Your task to perform on an android device: What's the weather? Image 0: 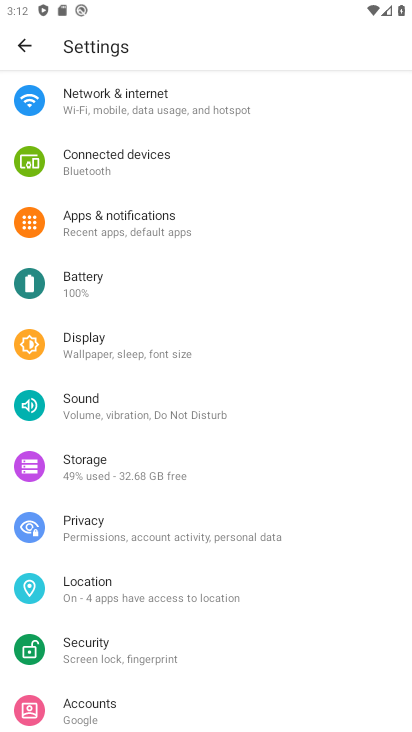
Step 0: press home button
Your task to perform on an android device: What's the weather? Image 1: 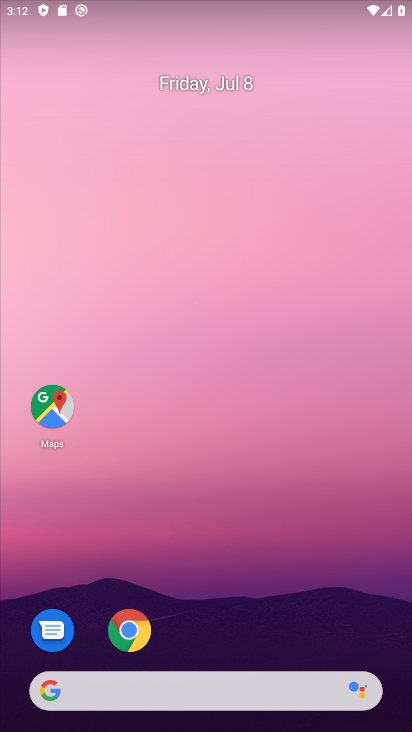
Step 1: drag from (240, 651) to (183, 127)
Your task to perform on an android device: What's the weather? Image 2: 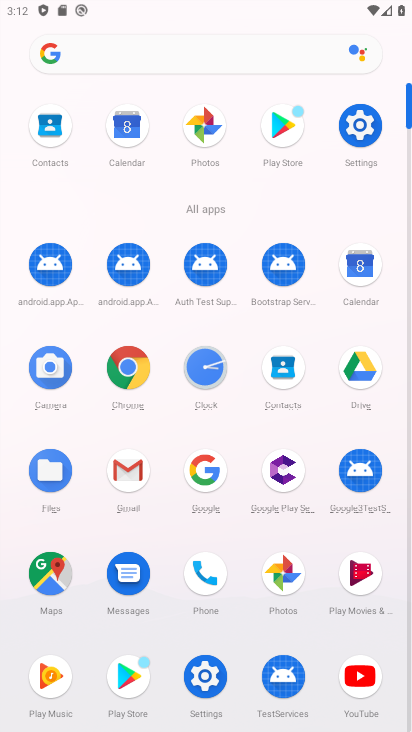
Step 2: click (200, 467)
Your task to perform on an android device: What's the weather? Image 3: 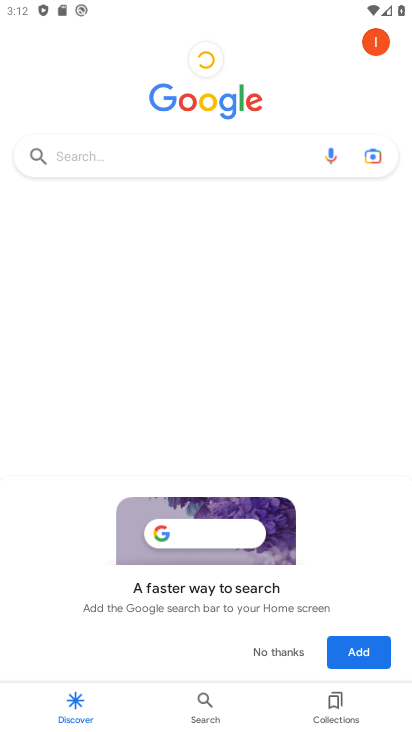
Step 3: click (180, 146)
Your task to perform on an android device: What's the weather? Image 4: 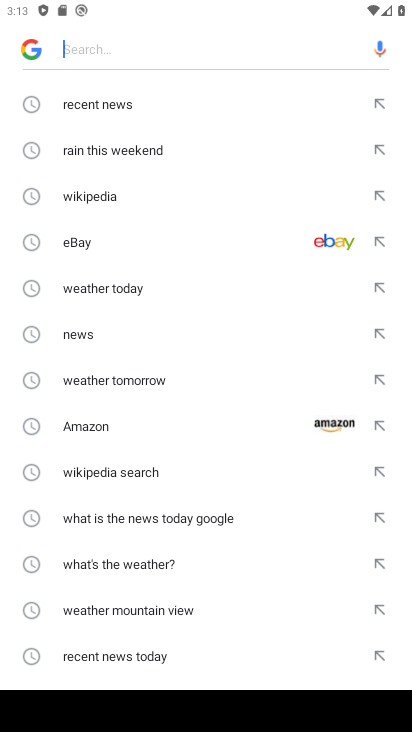
Step 4: type "weather"
Your task to perform on an android device: What's the weather? Image 5: 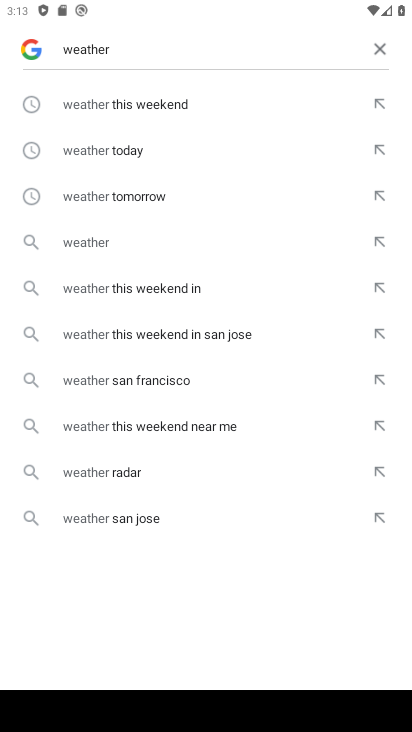
Step 5: click (86, 239)
Your task to perform on an android device: What's the weather? Image 6: 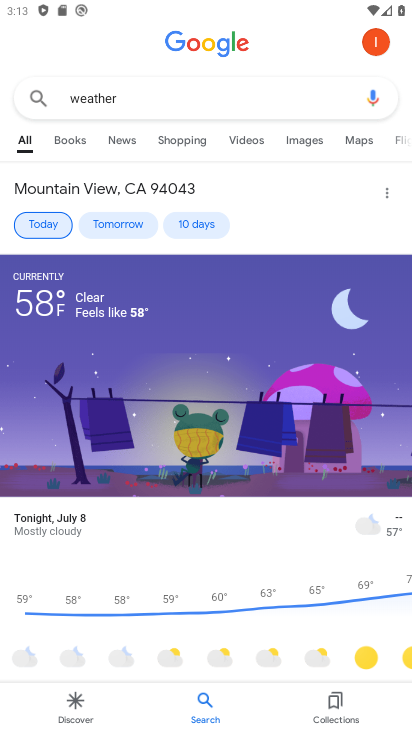
Step 6: task complete